Your task to perform on an android device: Show the shopping cart on amazon.com. Search for "jbl charge 4" on amazon.com, select the first entry, and add it to the cart. Image 0: 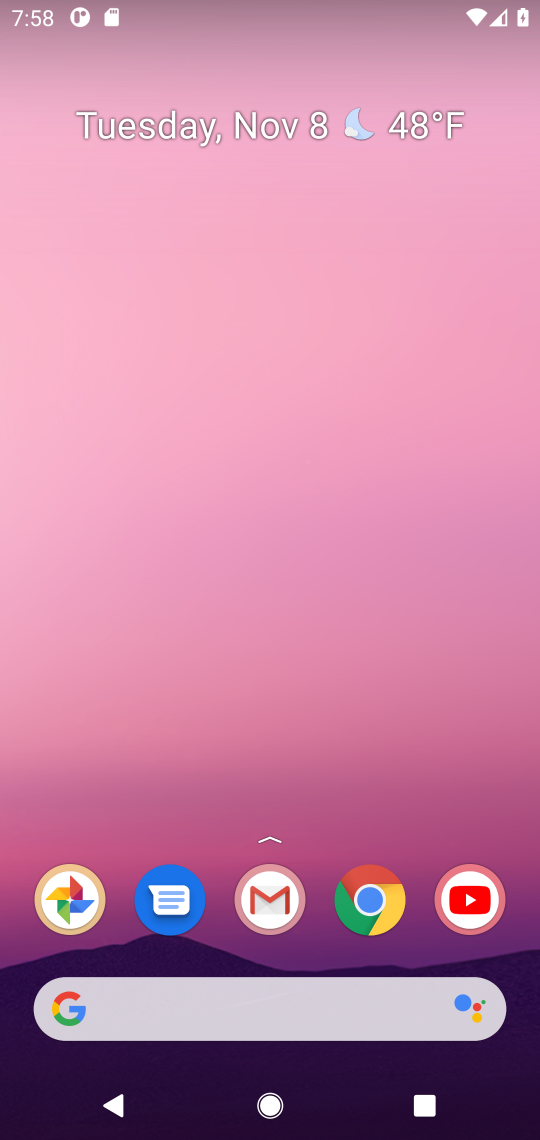
Step 0: drag from (200, 943) to (266, 91)
Your task to perform on an android device: Show the shopping cart on amazon.com. Search for "jbl charge 4" on amazon.com, select the first entry, and add it to the cart. Image 1: 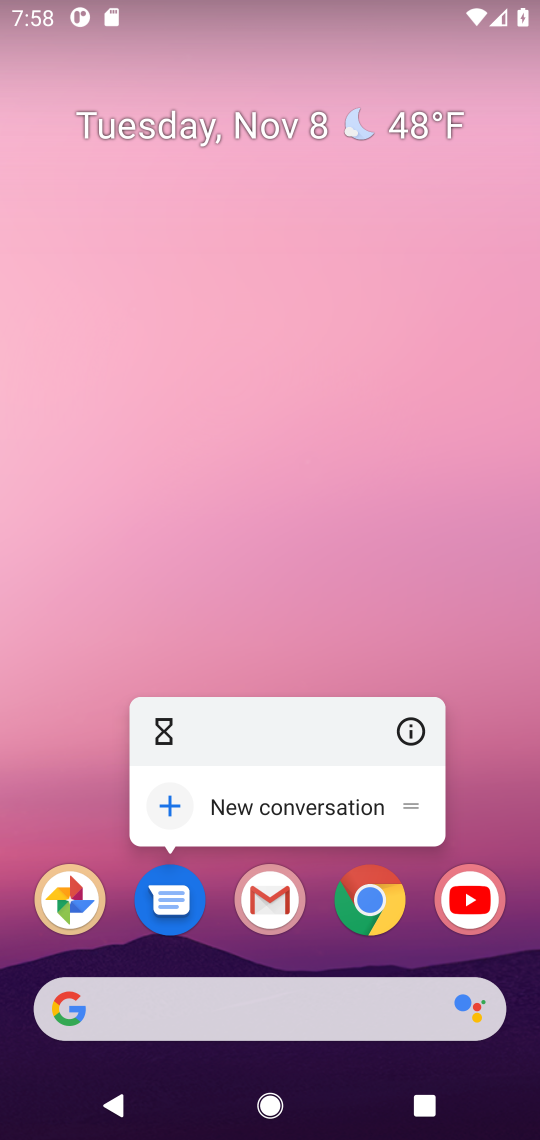
Step 1: click (453, 543)
Your task to perform on an android device: Show the shopping cart on amazon.com. Search for "jbl charge 4" on amazon.com, select the first entry, and add it to the cart. Image 2: 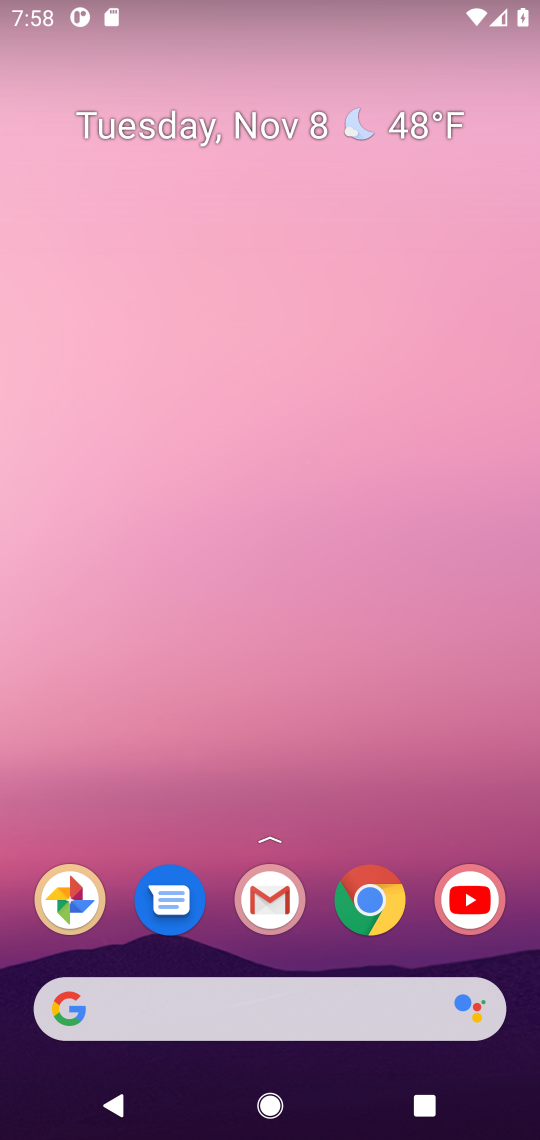
Step 2: drag from (206, 872) to (263, 319)
Your task to perform on an android device: Show the shopping cart on amazon.com. Search for "jbl charge 4" on amazon.com, select the first entry, and add it to the cart. Image 3: 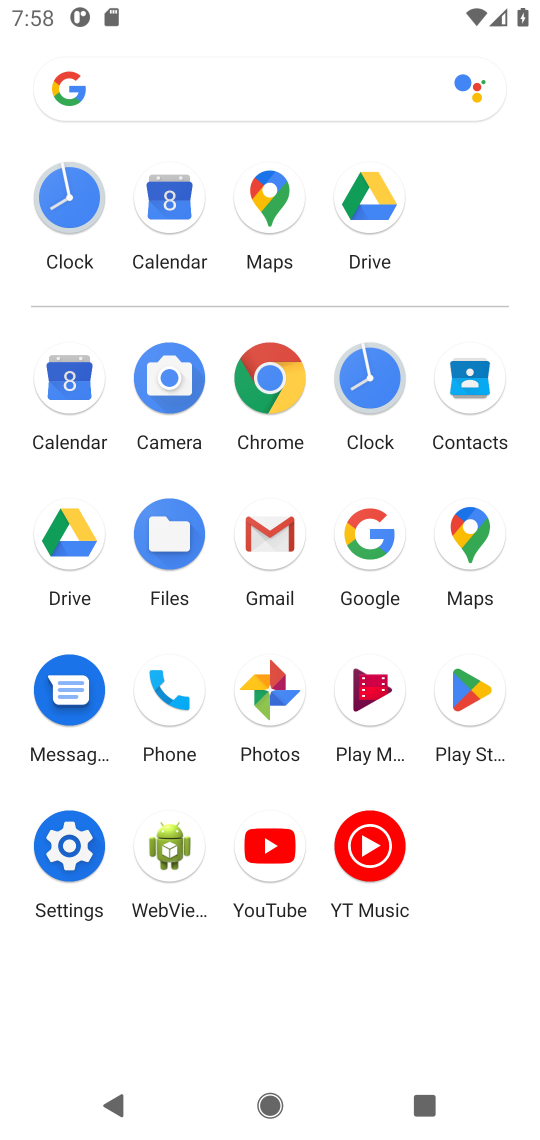
Step 3: click (384, 534)
Your task to perform on an android device: Show the shopping cart on amazon.com. Search for "jbl charge 4" on amazon.com, select the first entry, and add it to the cart. Image 4: 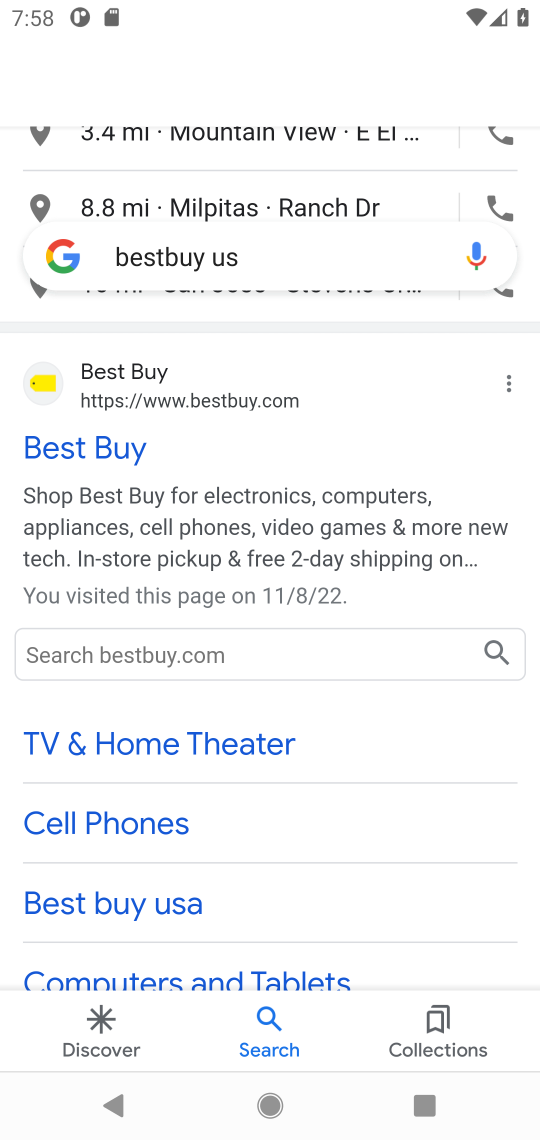
Step 4: click (240, 263)
Your task to perform on an android device: Show the shopping cart on amazon.com. Search for "jbl charge 4" on amazon.com, select the first entry, and add it to the cart. Image 5: 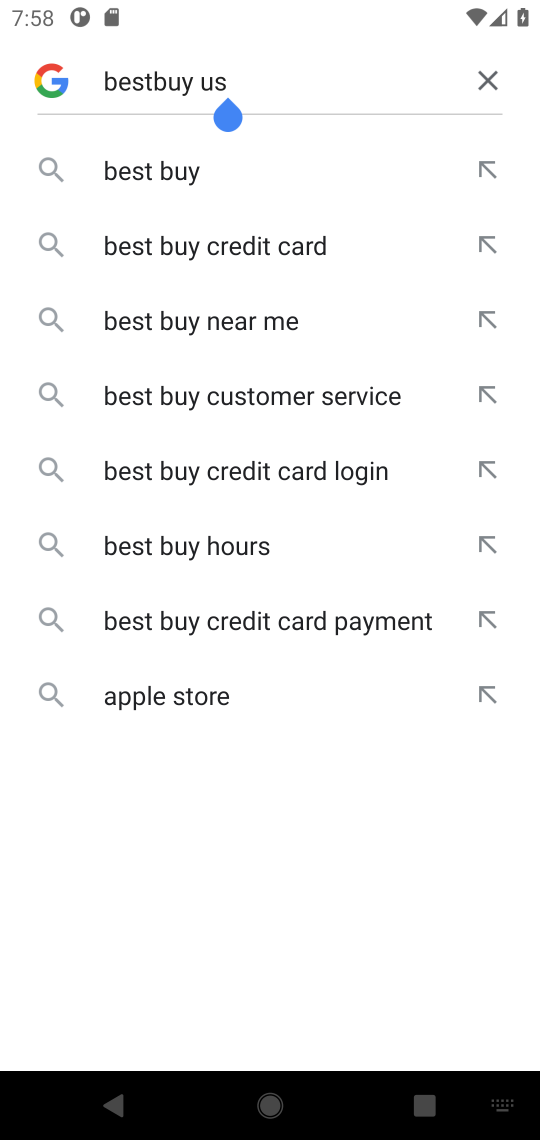
Step 5: click (500, 87)
Your task to perform on an android device: Show the shopping cart on amazon.com. Search for "jbl charge 4" on amazon.com, select the first entry, and add it to the cart. Image 6: 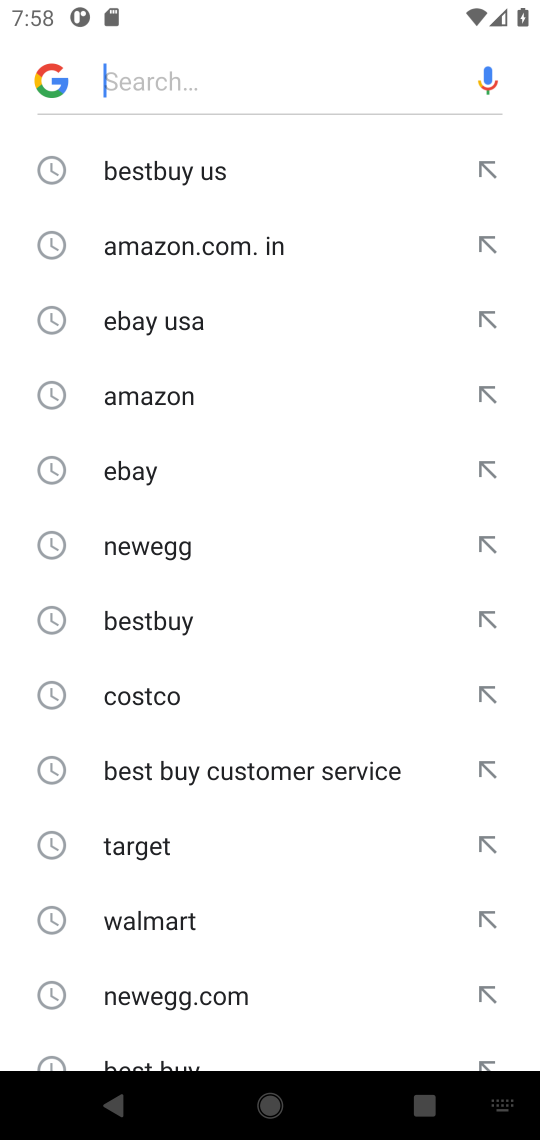
Step 6: click (195, 70)
Your task to perform on an android device: Show the shopping cart on amazon.com. Search for "jbl charge 4" on amazon.com, select the first entry, and add it to the cart. Image 7: 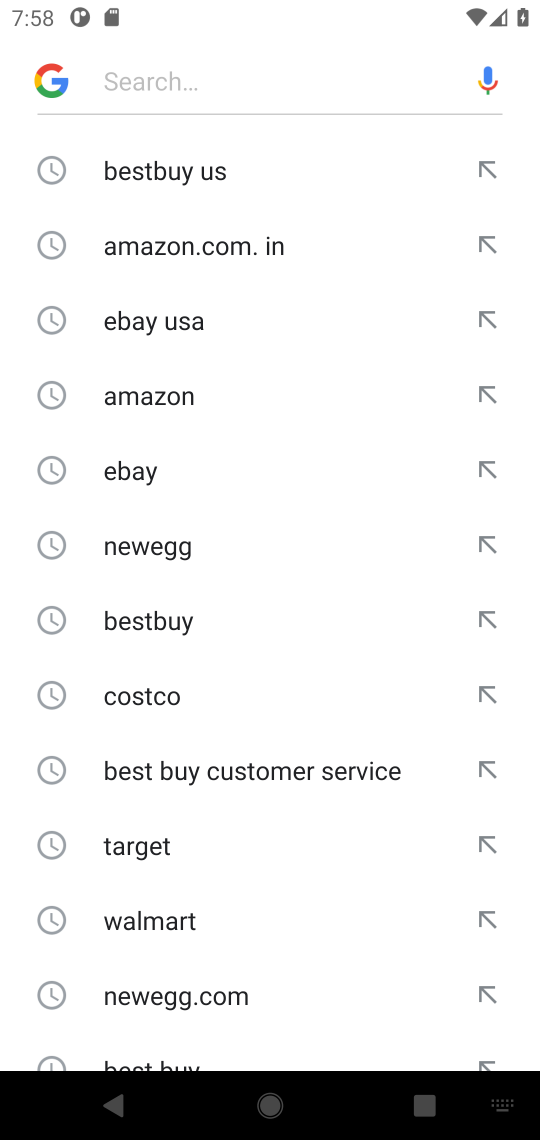
Step 7: type "amazon "
Your task to perform on an android device: Show the shopping cart on amazon.com. Search for "jbl charge 4" on amazon.com, select the first entry, and add it to the cart. Image 8: 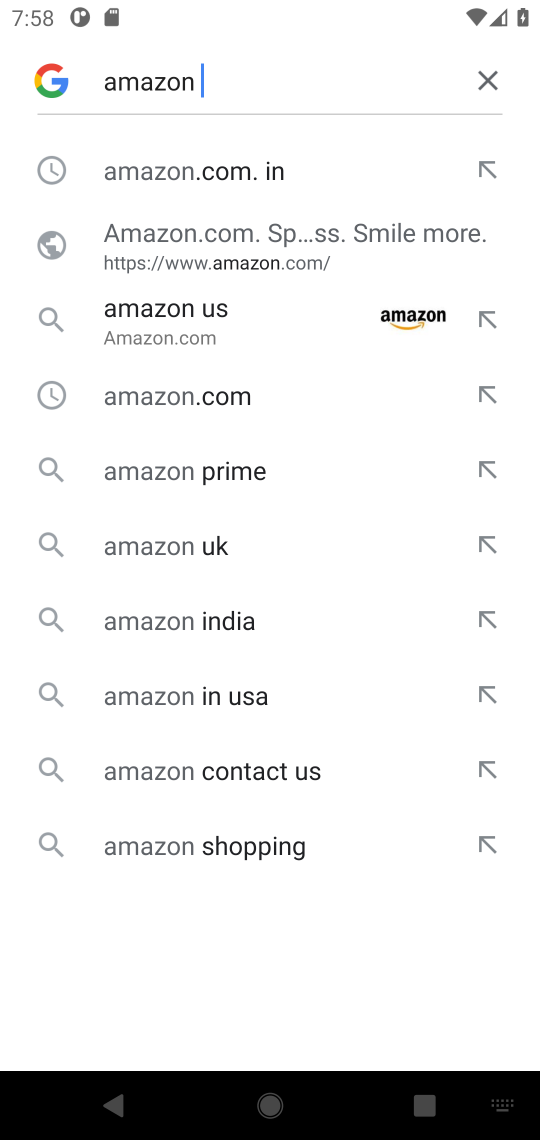
Step 8: click (199, 171)
Your task to perform on an android device: Show the shopping cart on amazon.com. Search for "jbl charge 4" on amazon.com, select the first entry, and add it to the cart. Image 9: 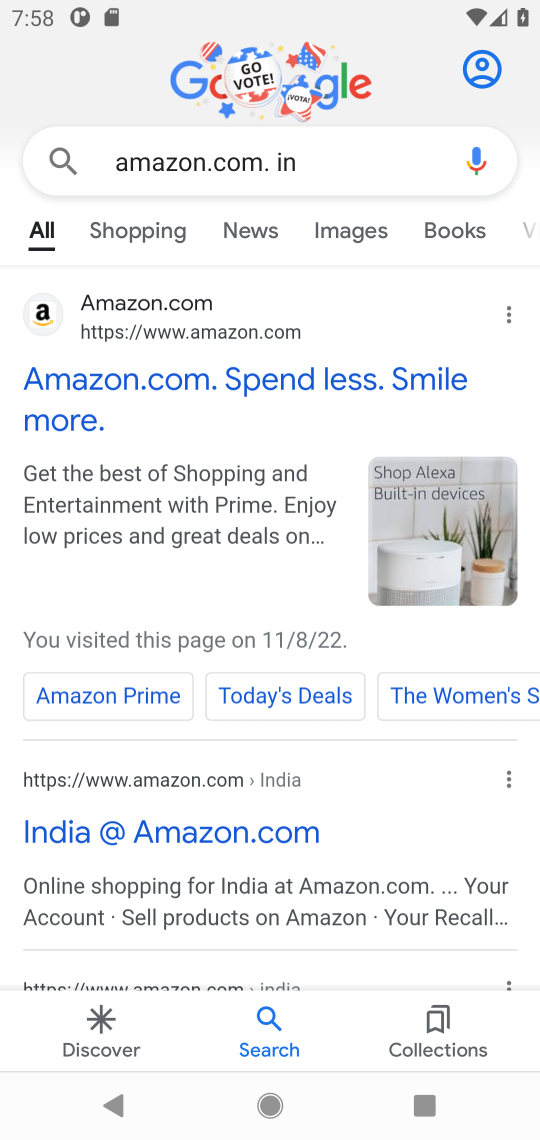
Step 9: click (46, 306)
Your task to perform on an android device: Show the shopping cart on amazon.com. Search for "jbl charge 4" on amazon.com, select the first entry, and add it to the cart. Image 10: 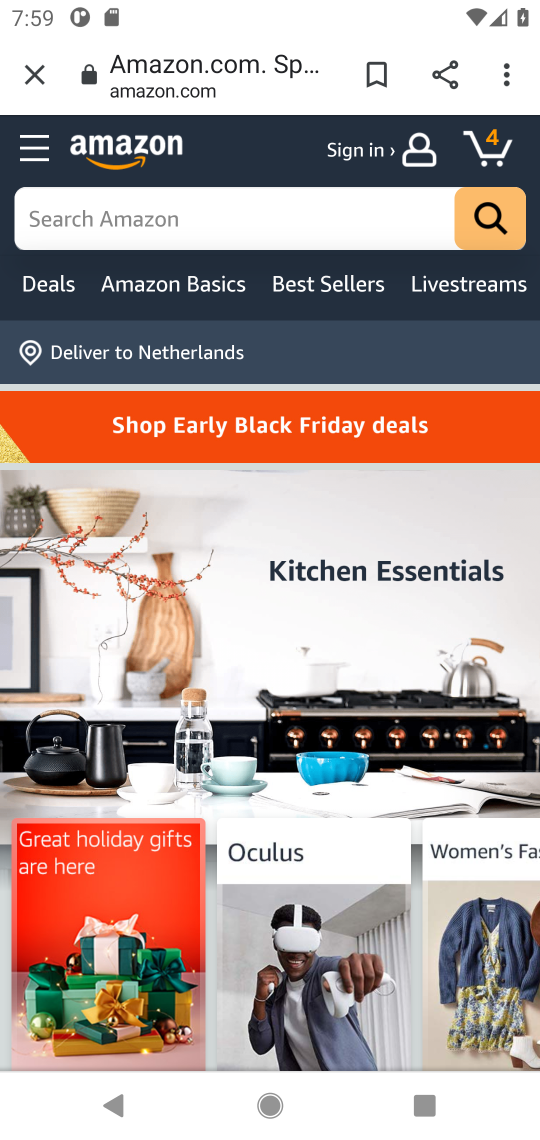
Step 10: click (277, 205)
Your task to perform on an android device: Show the shopping cart on amazon.com. Search for "jbl charge 4" on amazon.com, select the first entry, and add it to the cart. Image 11: 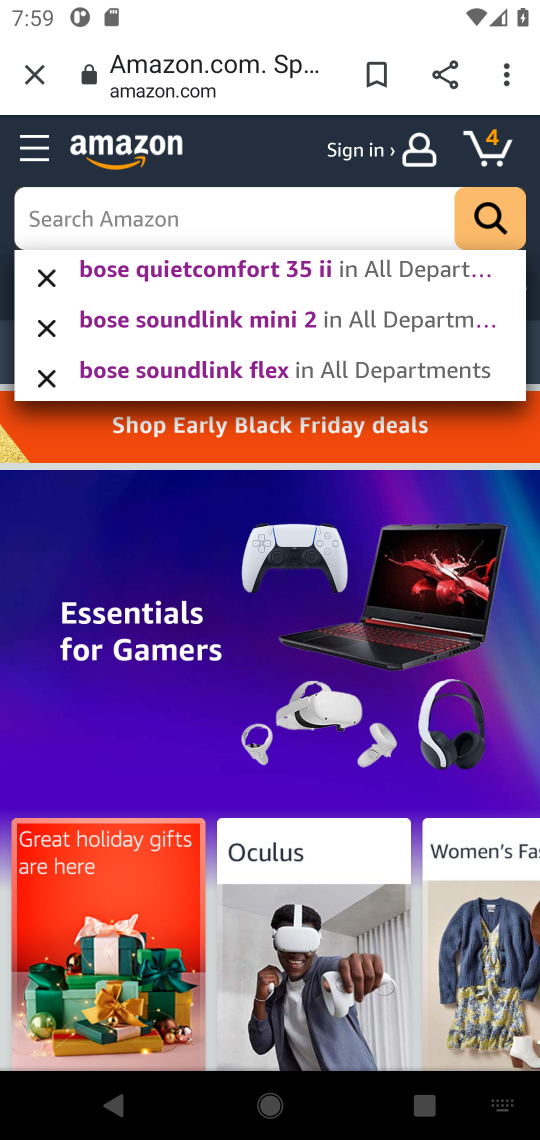
Step 11: click (251, 209)
Your task to perform on an android device: Show the shopping cart on amazon.com. Search for "jbl charge 4" on amazon.com, select the first entry, and add it to the cart. Image 12: 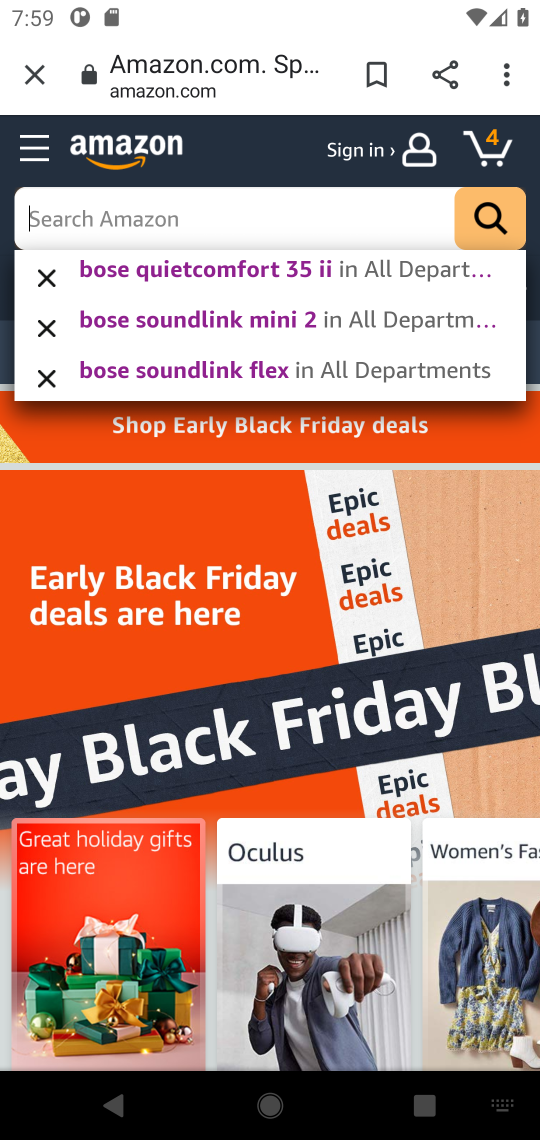
Step 12: type "jbl charge 4 "
Your task to perform on an android device: Show the shopping cart on amazon.com. Search for "jbl charge 4" on amazon.com, select the first entry, and add it to the cart. Image 13: 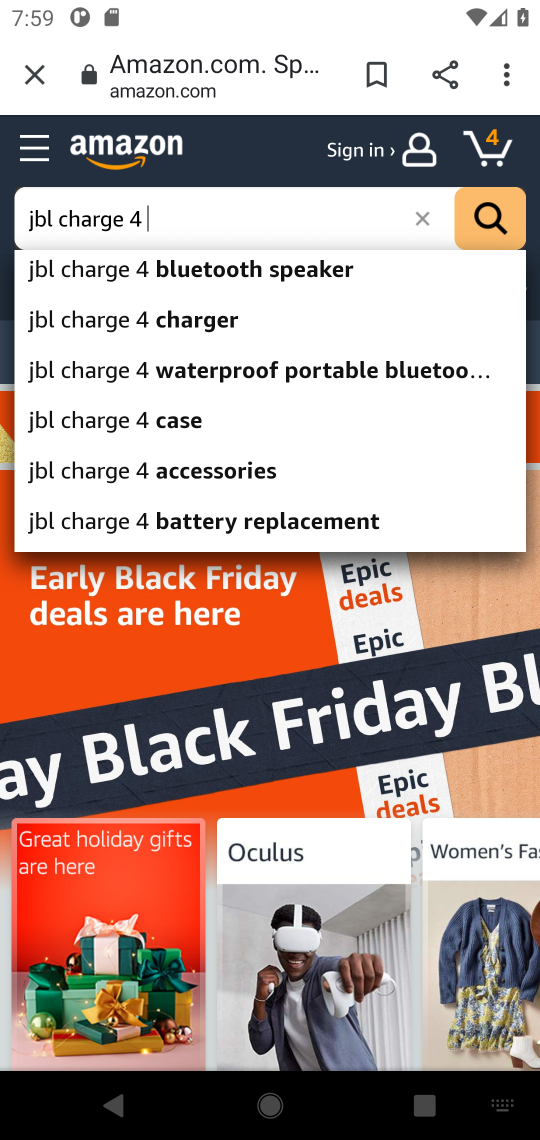
Step 13: click (491, 210)
Your task to perform on an android device: Show the shopping cart on amazon.com. Search for "jbl charge 4" on amazon.com, select the first entry, and add it to the cart. Image 14: 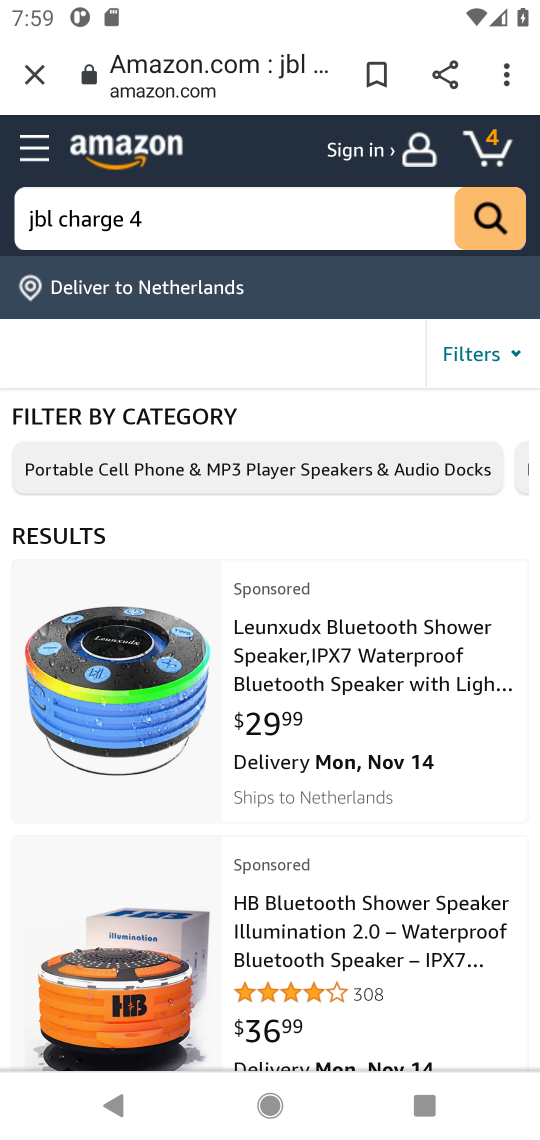
Step 14: drag from (379, 965) to (389, 363)
Your task to perform on an android device: Show the shopping cart on amazon.com. Search for "jbl charge 4" on amazon.com, select the first entry, and add it to the cart. Image 15: 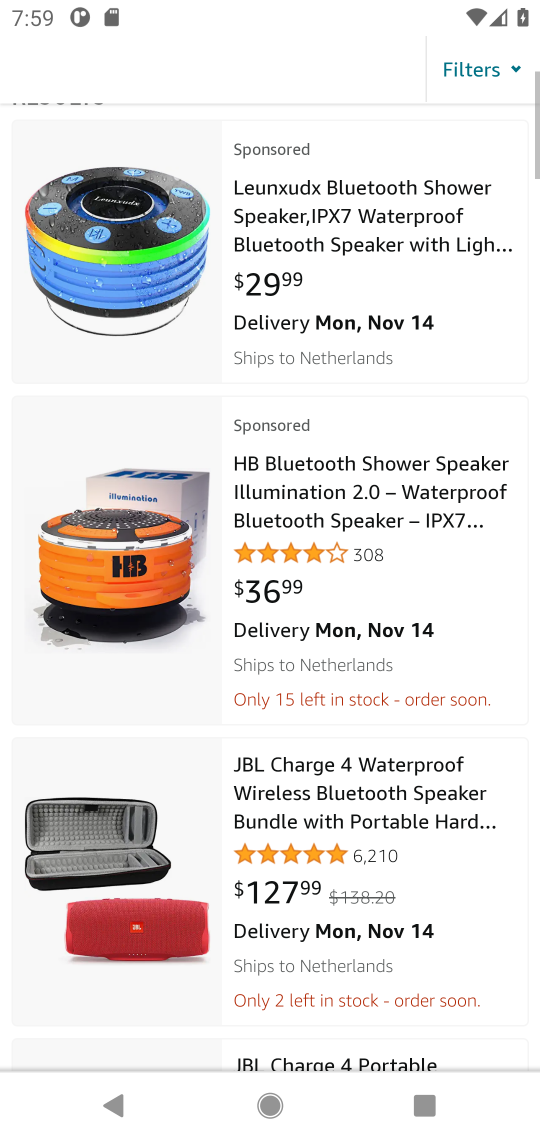
Step 15: drag from (232, 970) to (260, 463)
Your task to perform on an android device: Show the shopping cart on amazon.com. Search for "jbl charge 4" on amazon.com, select the first entry, and add it to the cart. Image 16: 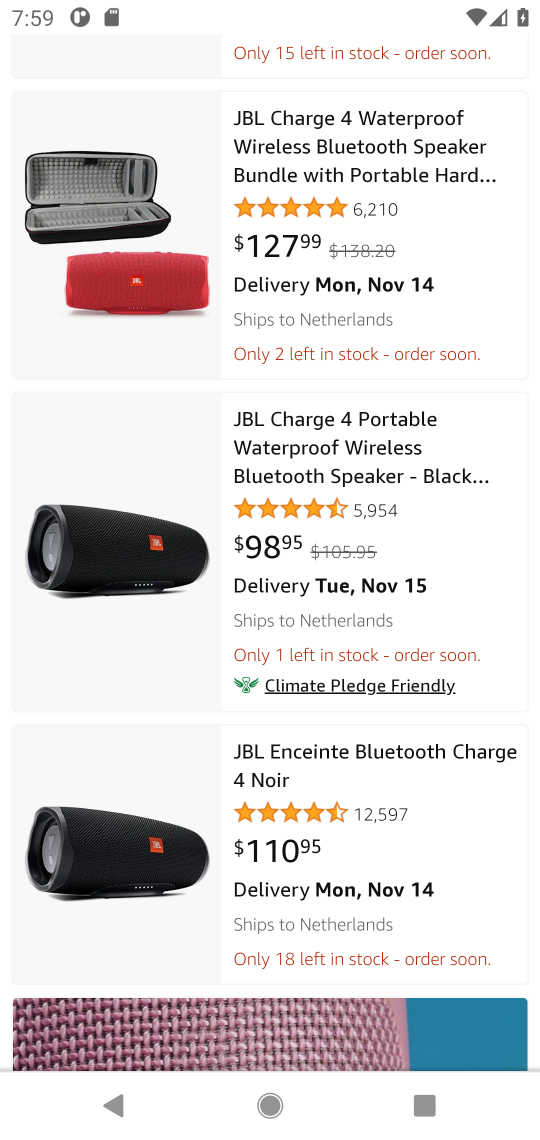
Step 16: click (327, 428)
Your task to perform on an android device: Show the shopping cart on amazon.com. Search for "jbl charge 4" on amazon.com, select the first entry, and add it to the cart. Image 17: 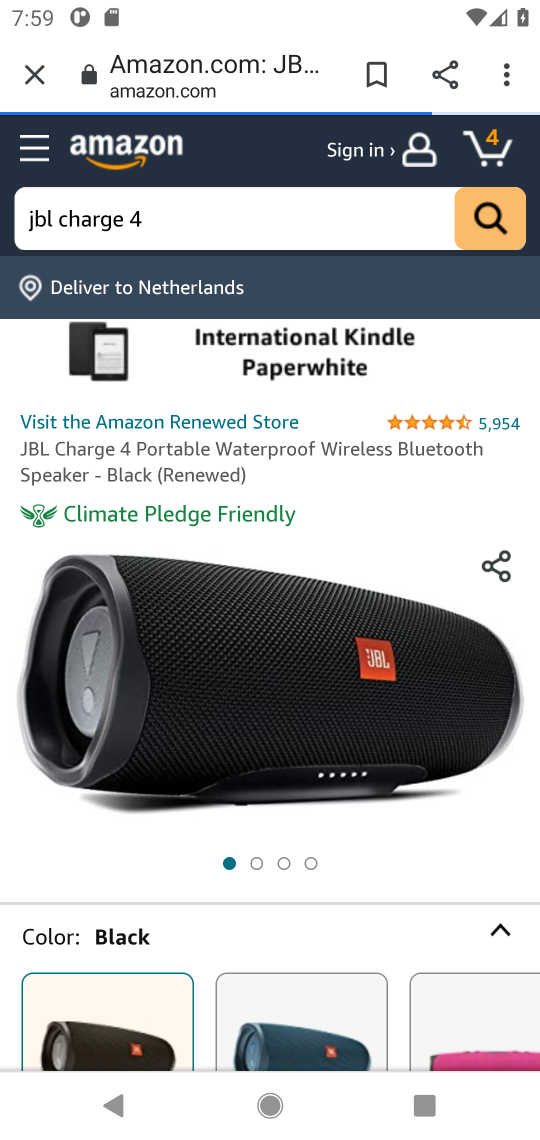
Step 17: drag from (345, 881) to (414, 449)
Your task to perform on an android device: Show the shopping cart on amazon.com. Search for "jbl charge 4" on amazon.com, select the first entry, and add it to the cart. Image 18: 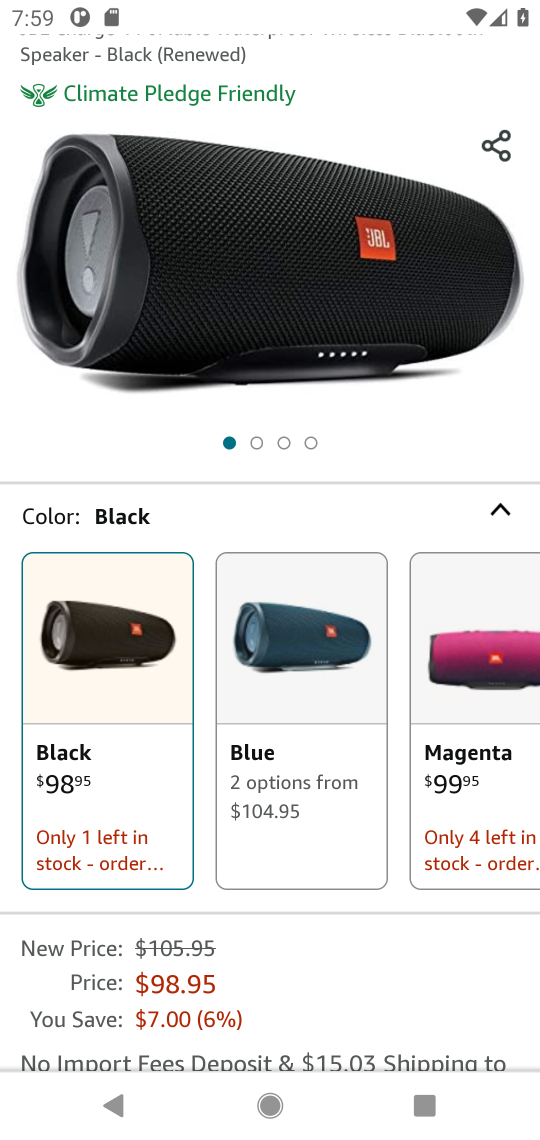
Step 18: drag from (327, 798) to (351, 122)
Your task to perform on an android device: Show the shopping cart on amazon.com. Search for "jbl charge 4" on amazon.com, select the first entry, and add it to the cart. Image 19: 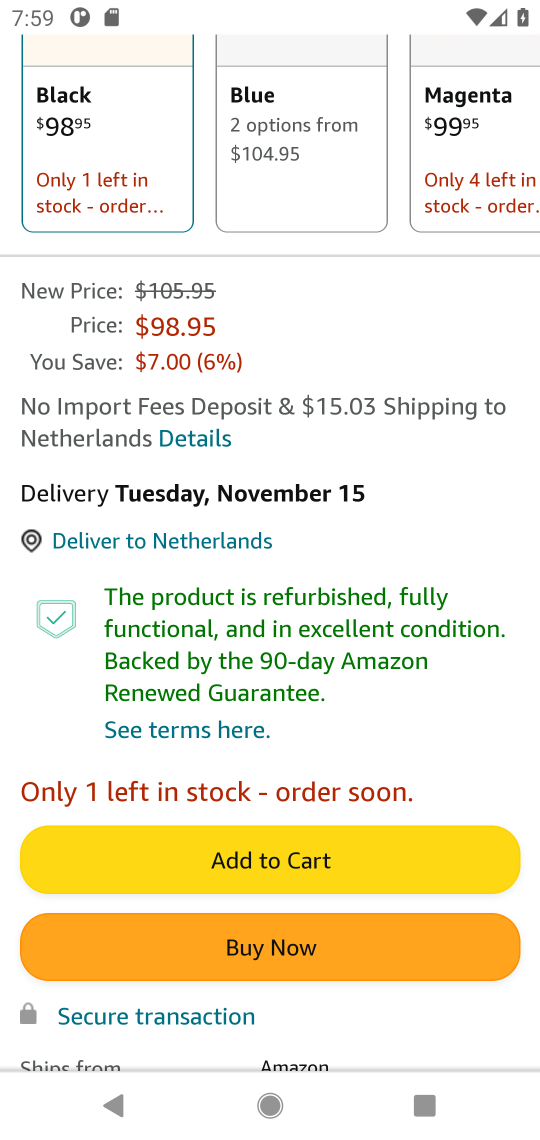
Step 19: drag from (284, 882) to (260, 607)
Your task to perform on an android device: Show the shopping cart on amazon.com. Search for "jbl charge 4" on amazon.com, select the first entry, and add it to the cart. Image 20: 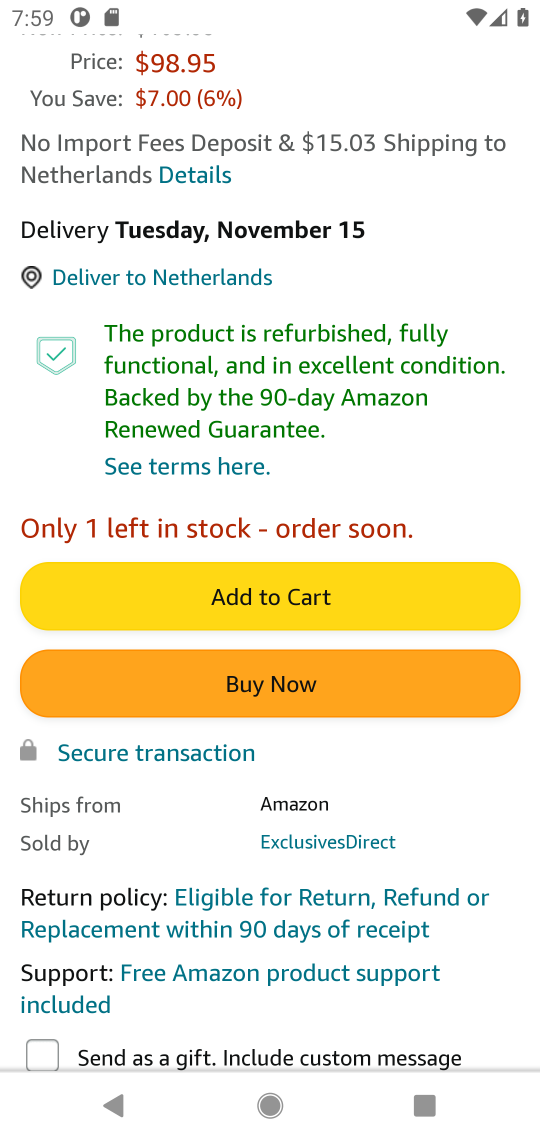
Step 20: click (309, 589)
Your task to perform on an android device: Show the shopping cart on amazon.com. Search for "jbl charge 4" on amazon.com, select the first entry, and add it to the cart. Image 21: 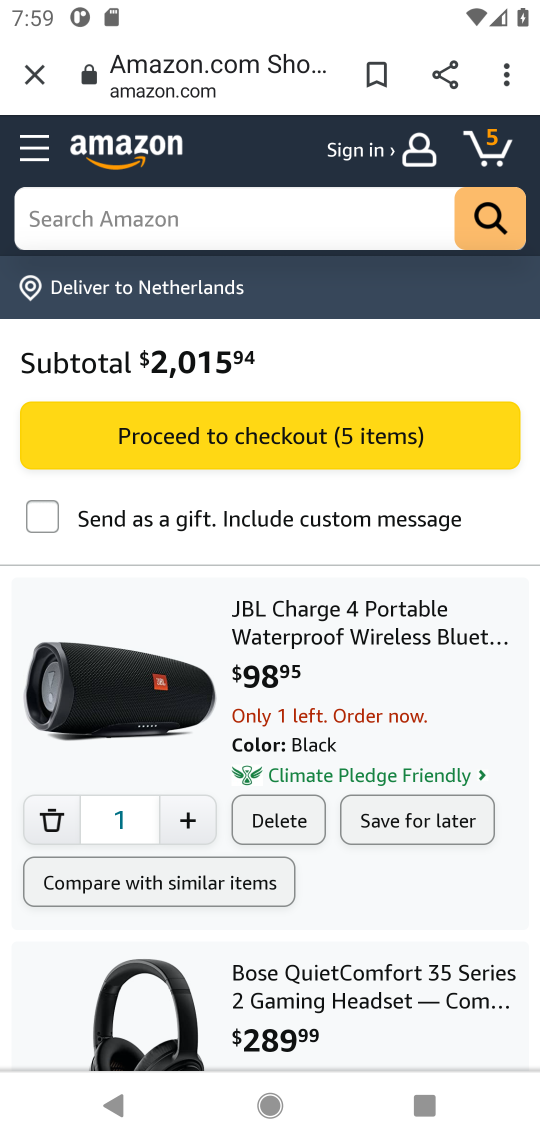
Step 21: task complete